Your task to perform on an android device: change the clock display to show seconds Image 0: 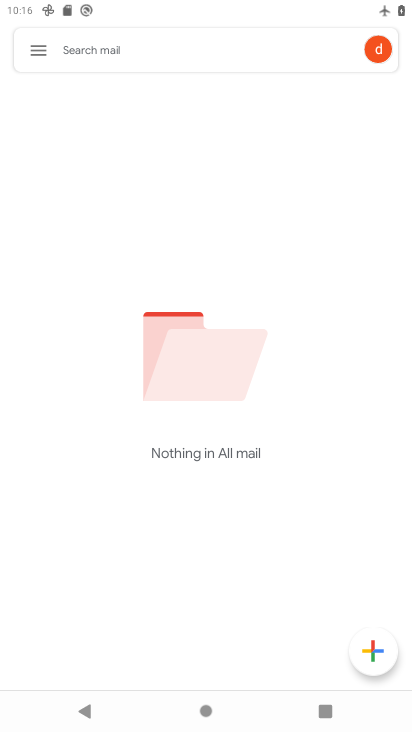
Step 0: press back button
Your task to perform on an android device: change the clock display to show seconds Image 1: 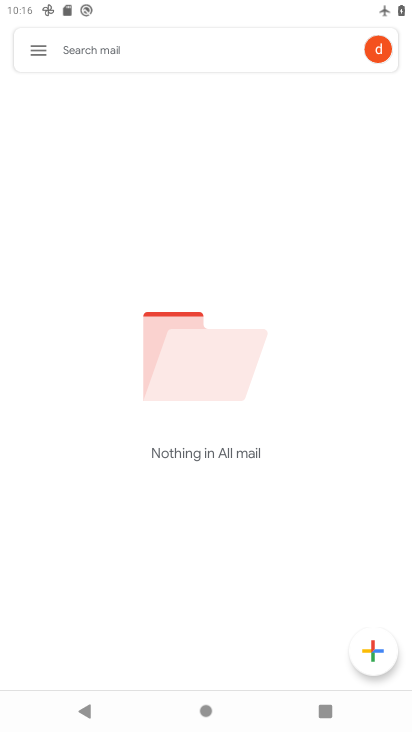
Step 1: press back button
Your task to perform on an android device: change the clock display to show seconds Image 2: 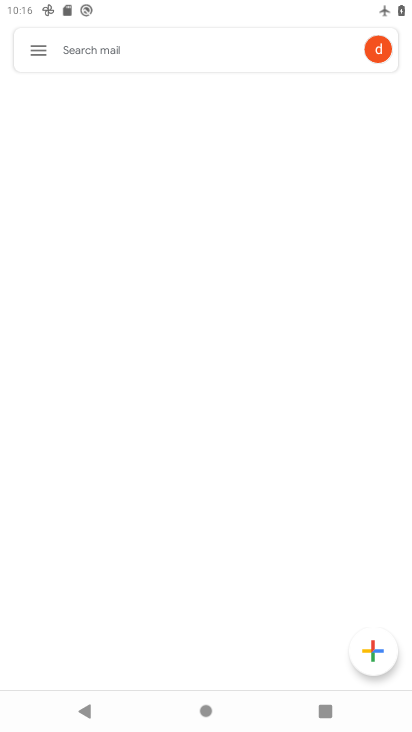
Step 2: press back button
Your task to perform on an android device: change the clock display to show seconds Image 3: 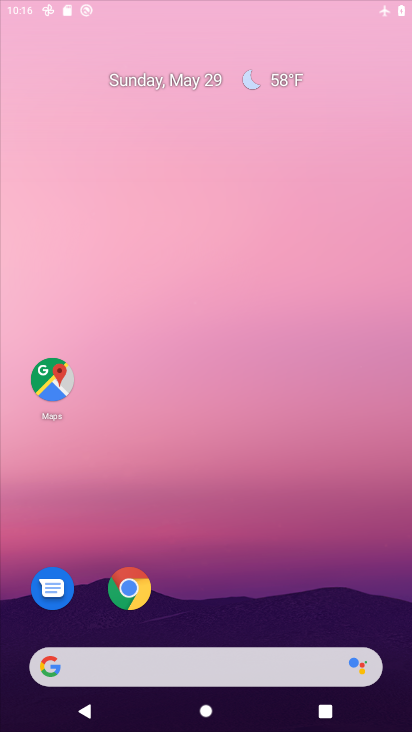
Step 3: press back button
Your task to perform on an android device: change the clock display to show seconds Image 4: 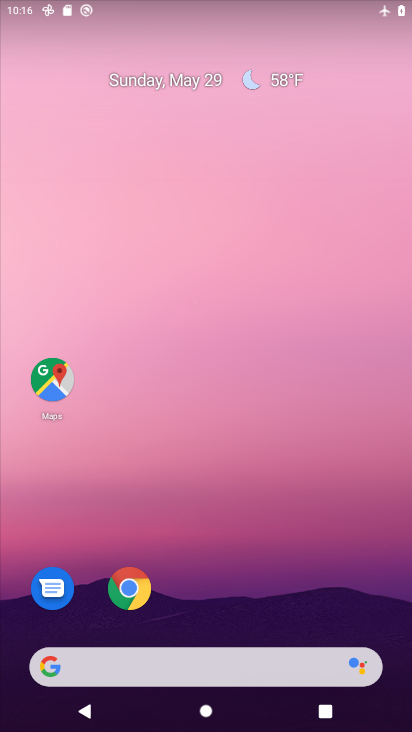
Step 4: drag from (283, 674) to (187, 100)
Your task to perform on an android device: change the clock display to show seconds Image 5: 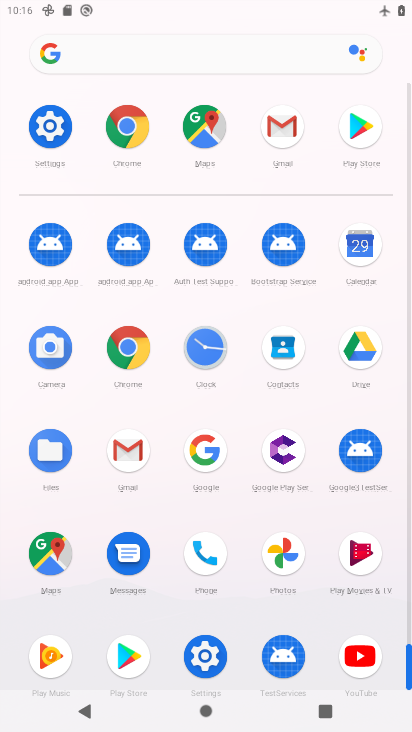
Step 5: click (205, 341)
Your task to perform on an android device: change the clock display to show seconds Image 6: 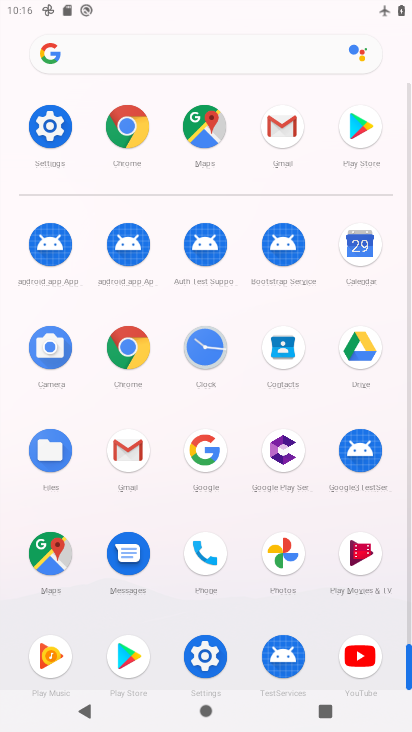
Step 6: click (205, 341)
Your task to perform on an android device: change the clock display to show seconds Image 7: 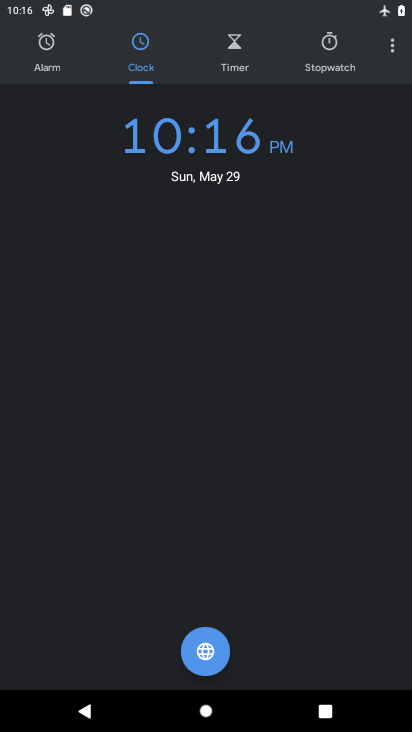
Step 7: click (206, 339)
Your task to perform on an android device: change the clock display to show seconds Image 8: 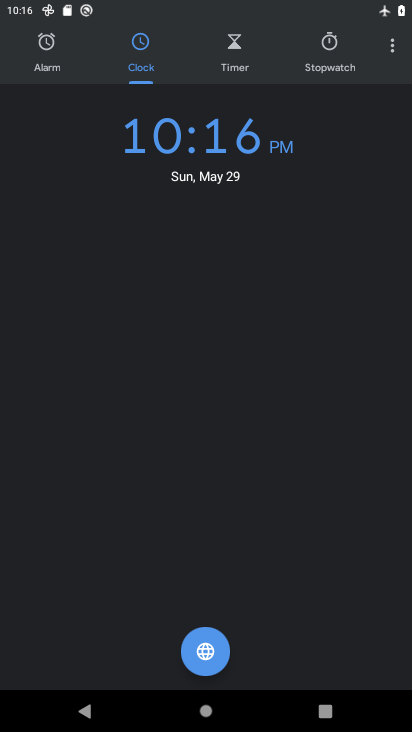
Step 8: click (390, 52)
Your task to perform on an android device: change the clock display to show seconds Image 9: 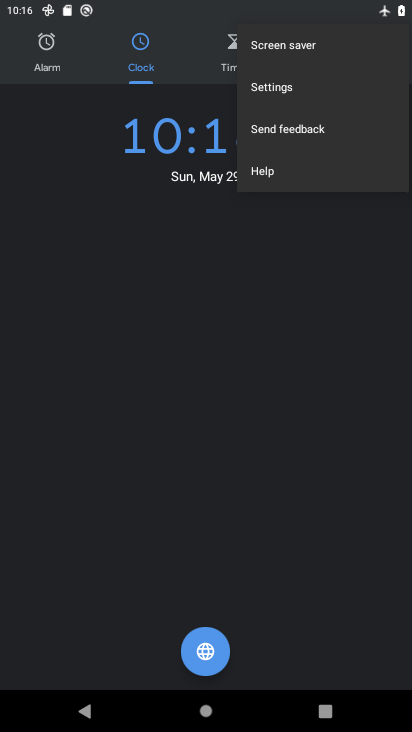
Step 9: click (267, 92)
Your task to perform on an android device: change the clock display to show seconds Image 10: 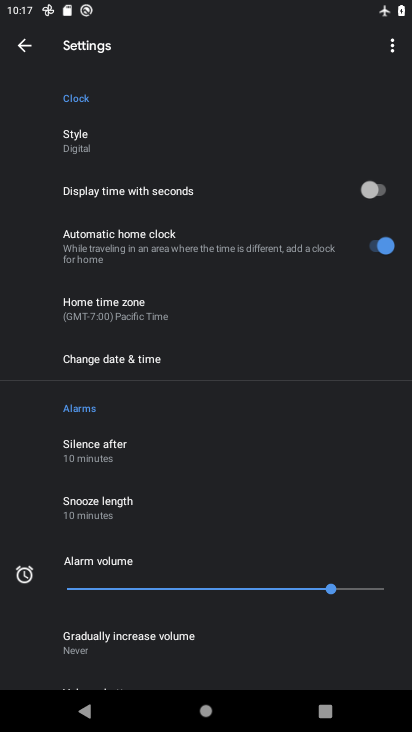
Step 10: click (366, 187)
Your task to perform on an android device: change the clock display to show seconds Image 11: 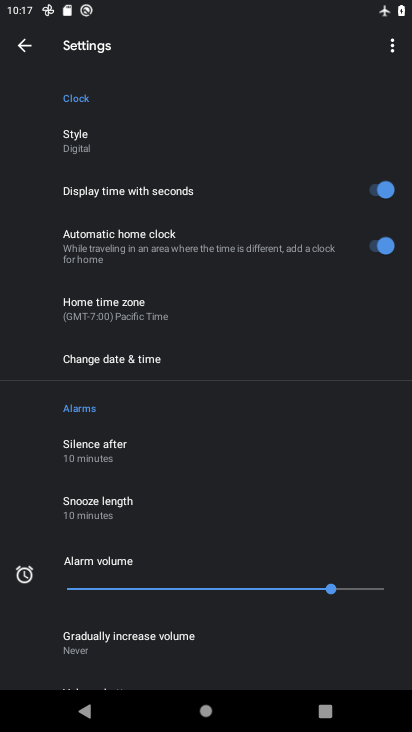
Step 11: task complete